Your task to perform on an android device: add a contact Image 0: 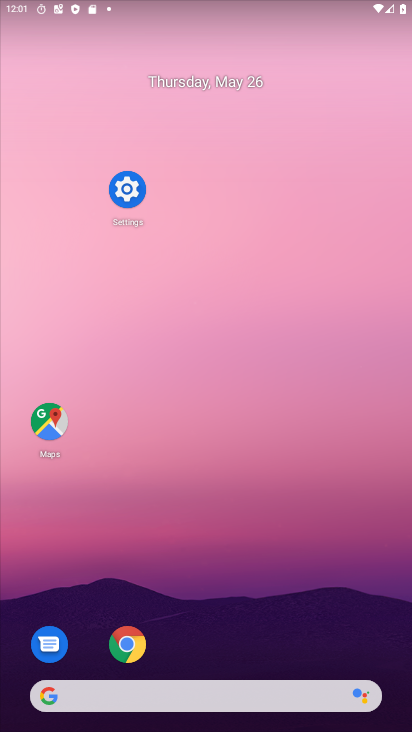
Step 0: drag from (207, 611) to (286, 75)
Your task to perform on an android device: add a contact Image 1: 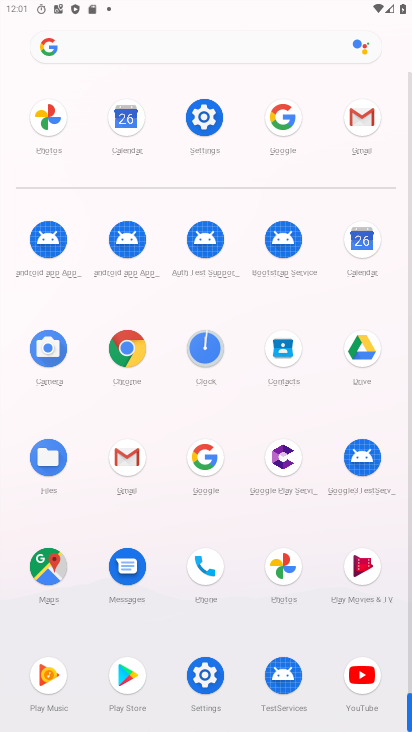
Step 1: click (287, 350)
Your task to perform on an android device: add a contact Image 2: 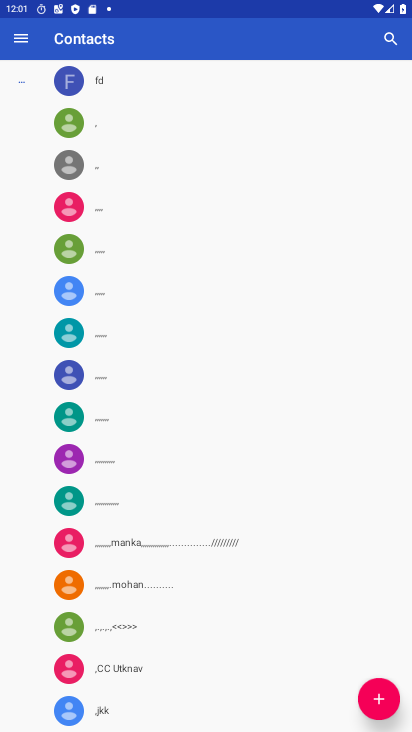
Step 2: click (388, 705)
Your task to perform on an android device: add a contact Image 3: 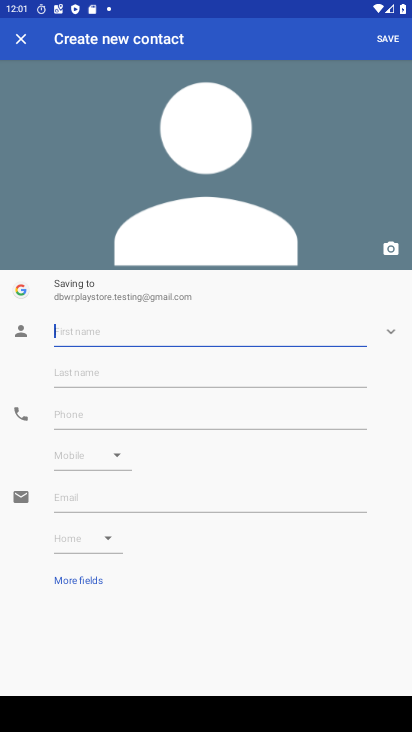
Step 3: click (146, 331)
Your task to perform on an android device: add a contact Image 4: 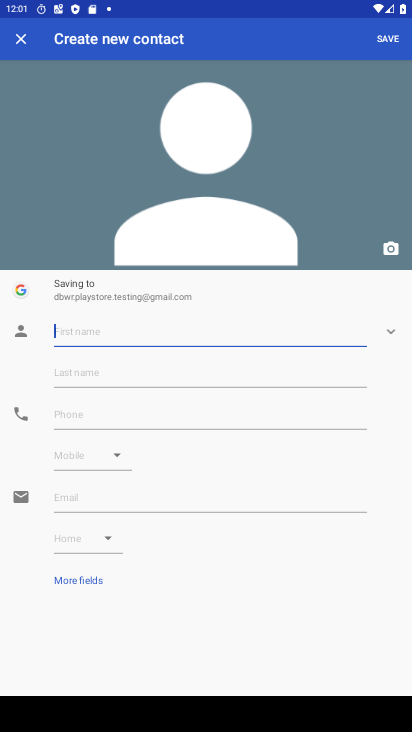
Step 4: type "jgdxmgh"
Your task to perform on an android device: add a contact Image 5: 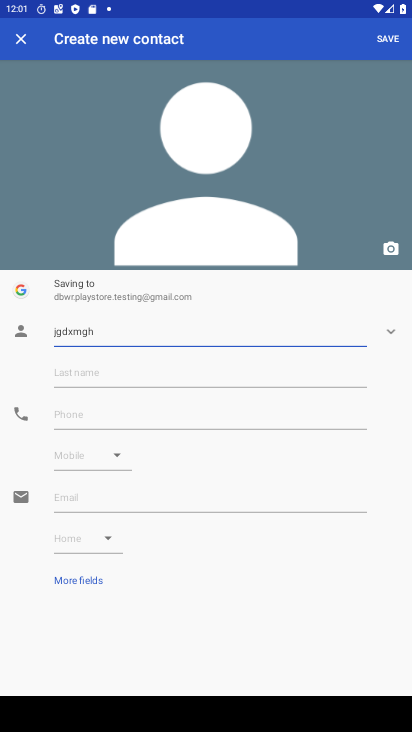
Step 5: click (375, 41)
Your task to perform on an android device: add a contact Image 6: 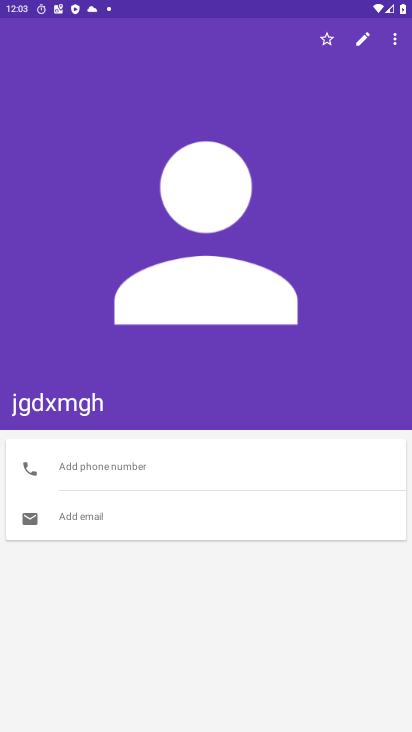
Step 6: task complete